Your task to perform on an android device: What is the recent news? Image 0: 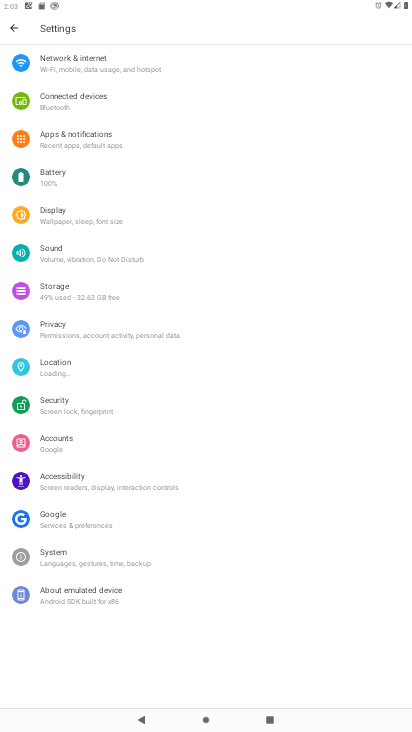
Step 0: press home button
Your task to perform on an android device: What is the recent news? Image 1: 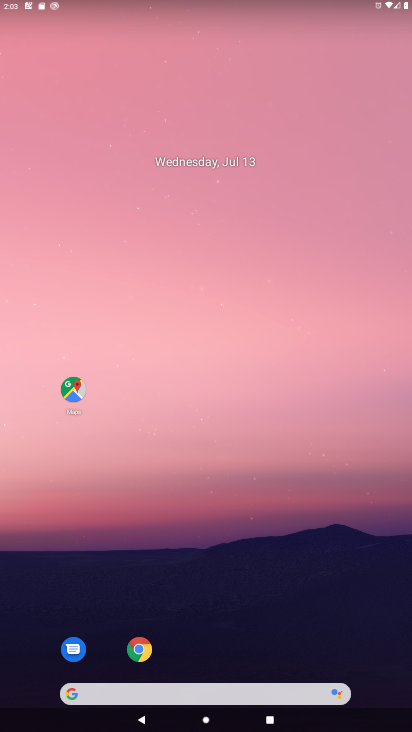
Step 1: click (142, 641)
Your task to perform on an android device: What is the recent news? Image 2: 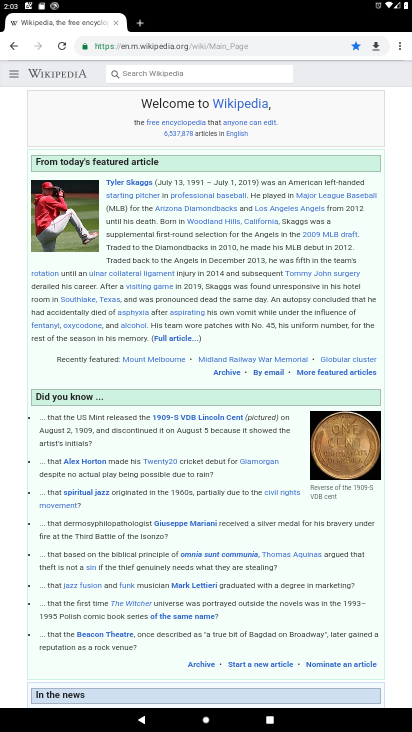
Step 2: click (222, 35)
Your task to perform on an android device: What is the recent news? Image 3: 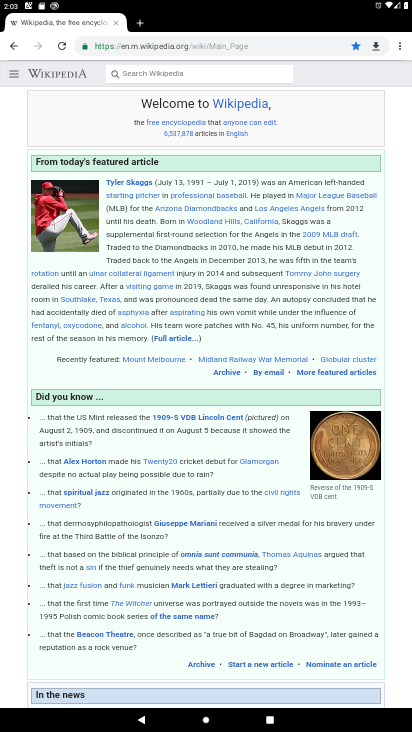
Step 3: click (222, 41)
Your task to perform on an android device: What is the recent news? Image 4: 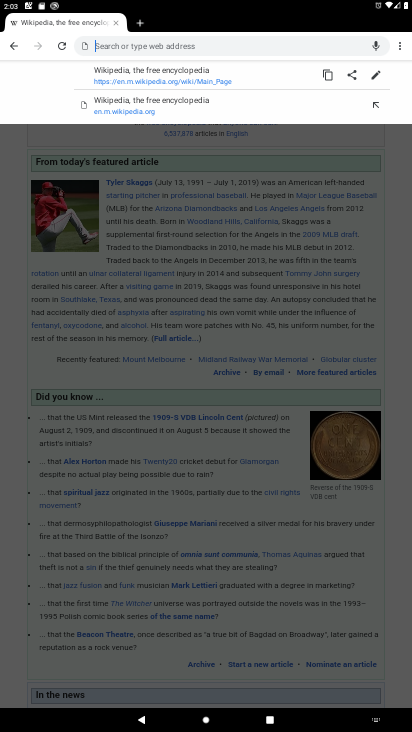
Step 4: type "What is the recent news?"
Your task to perform on an android device: What is the recent news? Image 5: 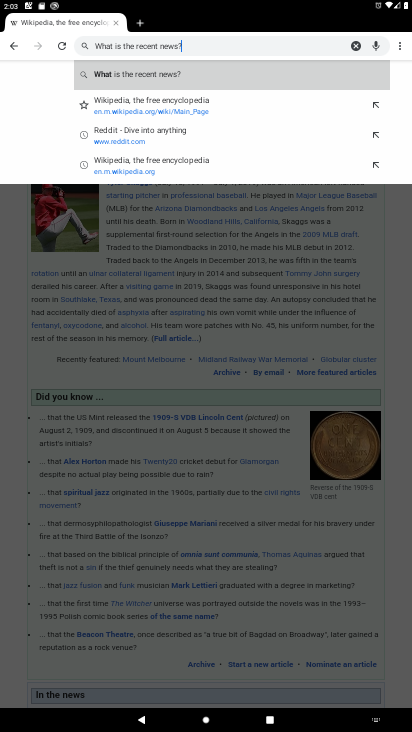
Step 5: type ""
Your task to perform on an android device: What is the recent news? Image 6: 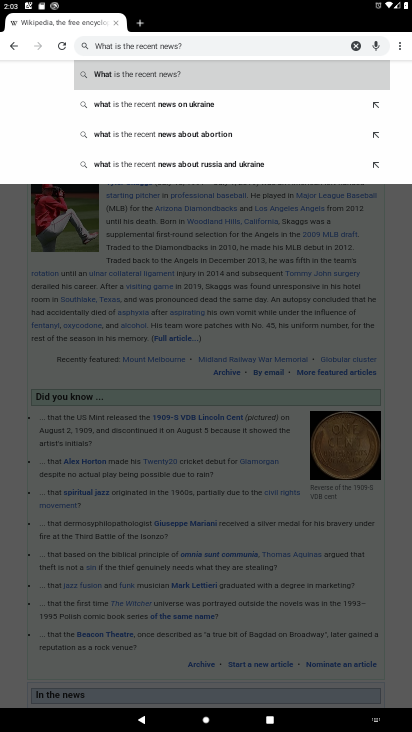
Step 6: click (178, 77)
Your task to perform on an android device: What is the recent news? Image 7: 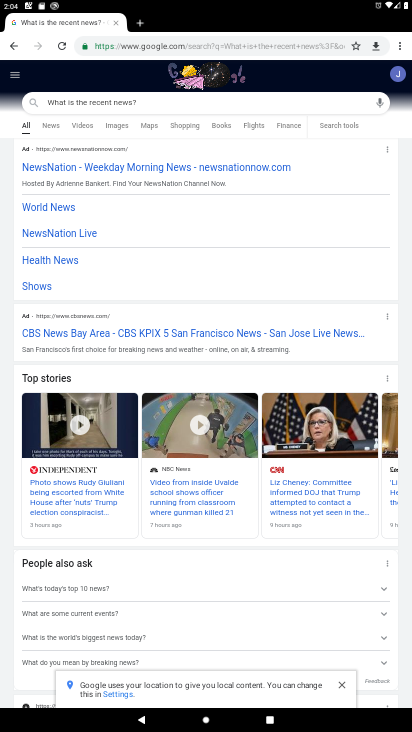
Step 7: task complete